Your task to perform on an android device: Open CNN.com Image 0: 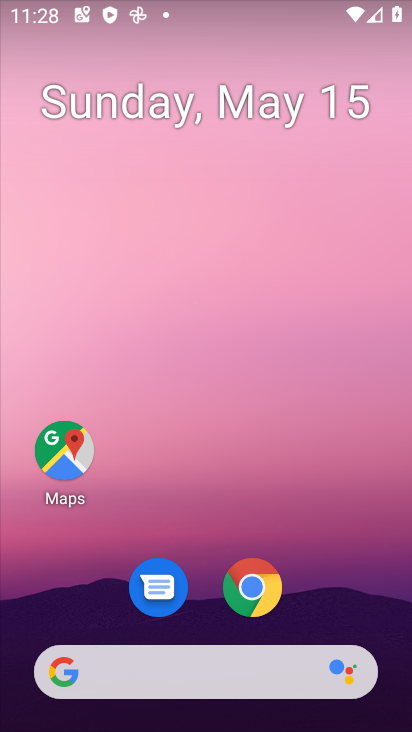
Step 0: drag from (390, 661) to (309, 71)
Your task to perform on an android device: Open CNN.com Image 1: 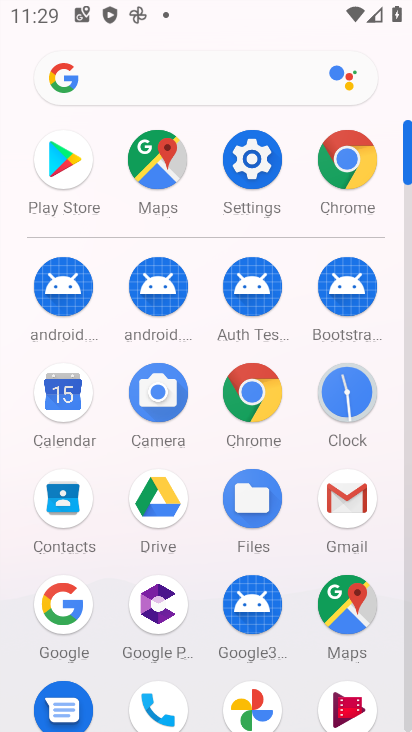
Step 1: click (236, 375)
Your task to perform on an android device: Open CNN.com Image 2: 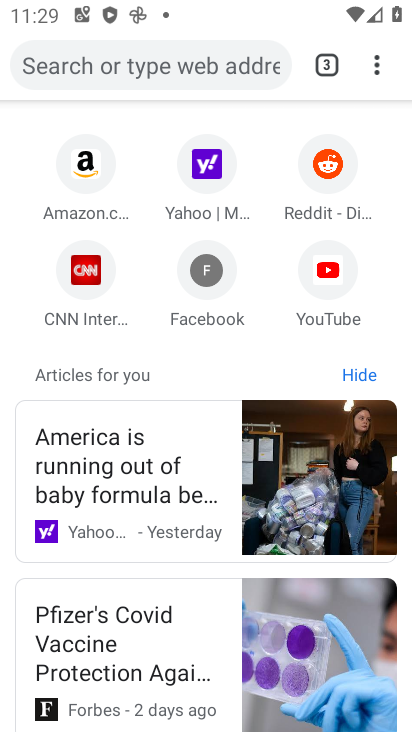
Step 2: click (73, 300)
Your task to perform on an android device: Open CNN.com Image 3: 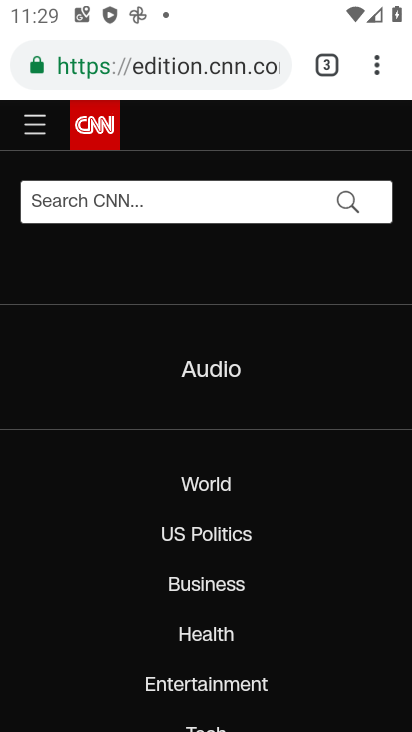
Step 3: task complete